Your task to perform on an android device: change the clock style Image 0: 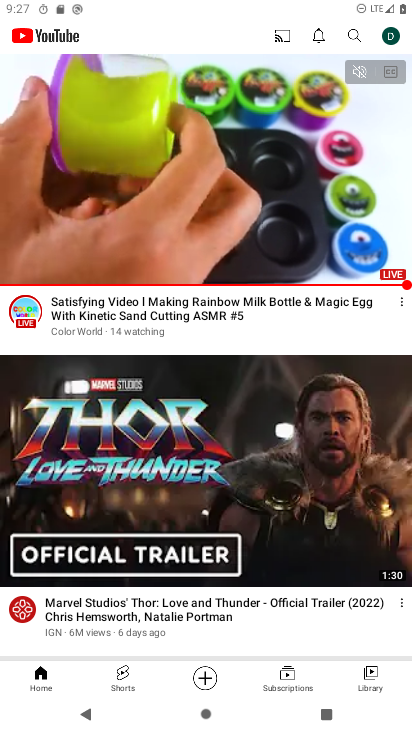
Step 0: press home button
Your task to perform on an android device: change the clock style Image 1: 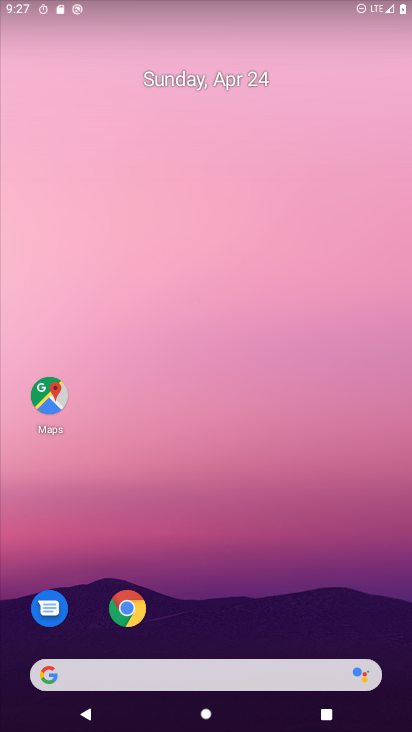
Step 1: drag from (261, 483) to (211, 84)
Your task to perform on an android device: change the clock style Image 2: 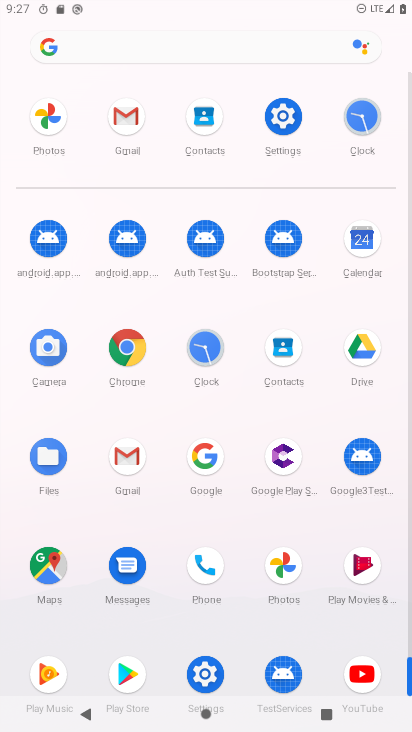
Step 2: click (356, 115)
Your task to perform on an android device: change the clock style Image 3: 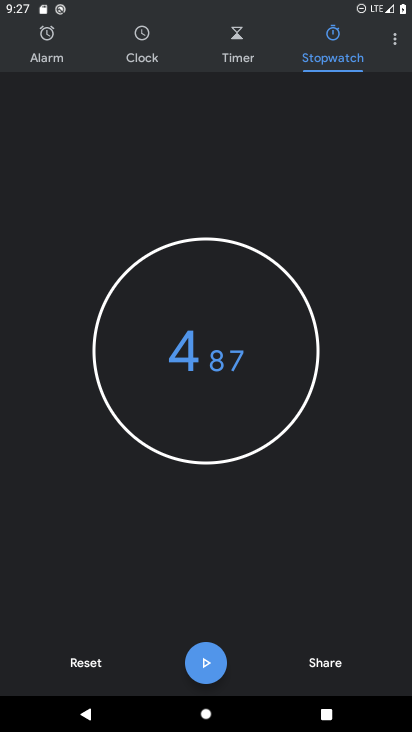
Step 3: click (393, 41)
Your task to perform on an android device: change the clock style Image 4: 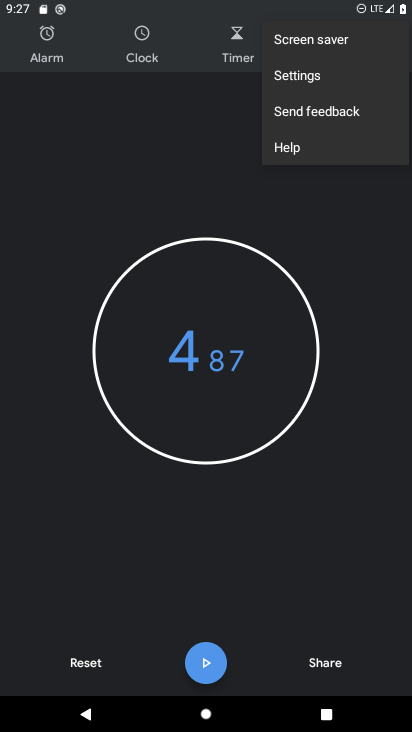
Step 4: click (348, 75)
Your task to perform on an android device: change the clock style Image 5: 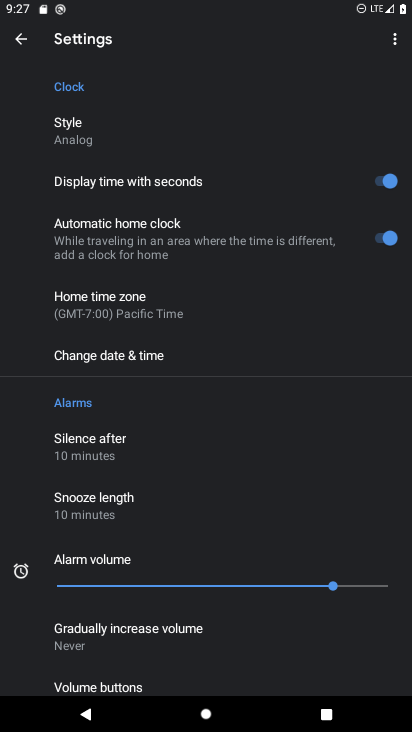
Step 5: click (208, 130)
Your task to perform on an android device: change the clock style Image 6: 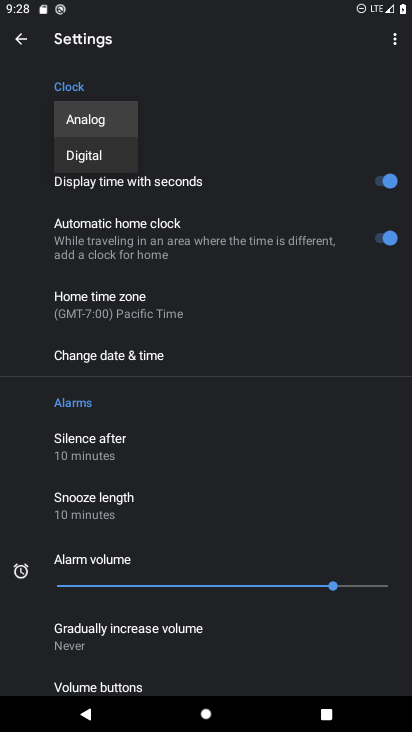
Step 6: click (117, 156)
Your task to perform on an android device: change the clock style Image 7: 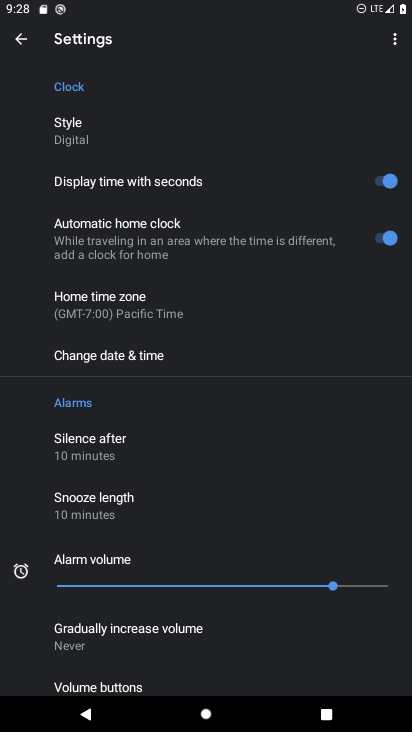
Step 7: click (22, 43)
Your task to perform on an android device: change the clock style Image 8: 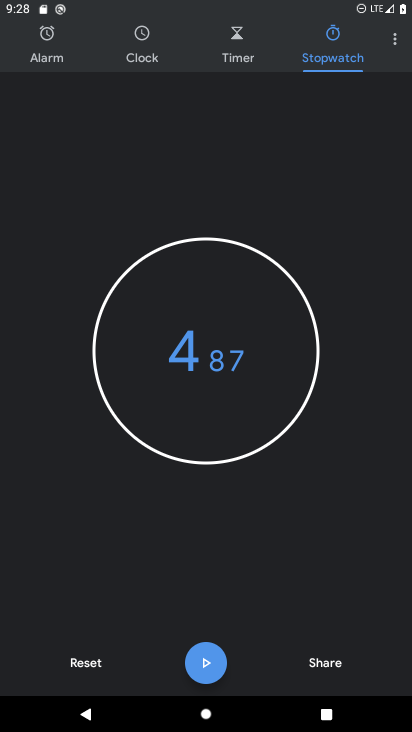
Step 8: click (139, 39)
Your task to perform on an android device: change the clock style Image 9: 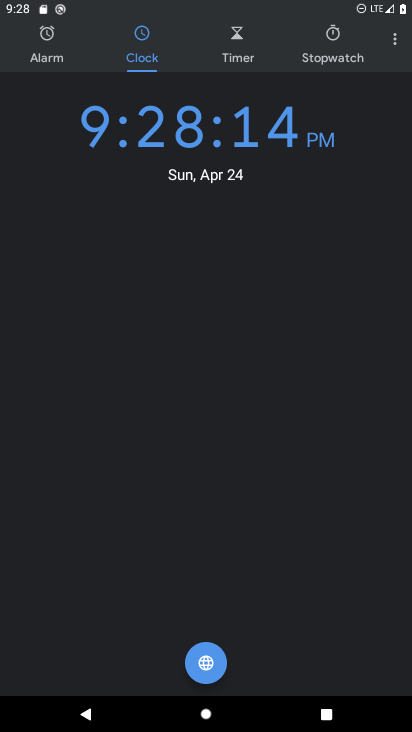
Step 9: task complete